Your task to perform on an android device: turn off data saver in the chrome app Image 0: 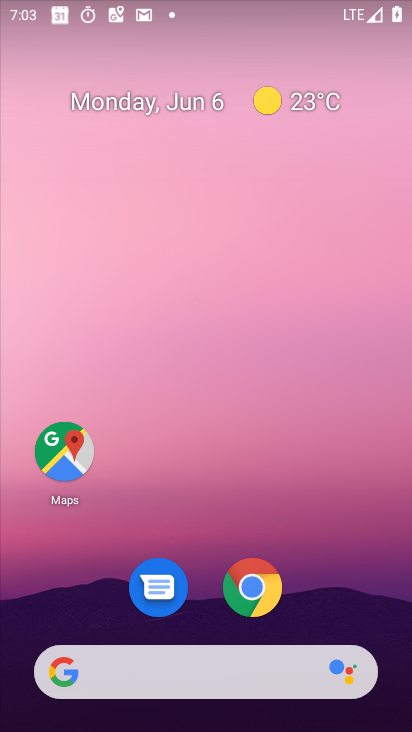
Step 0: drag from (398, 670) to (317, 48)
Your task to perform on an android device: turn off data saver in the chrome app Image 1: 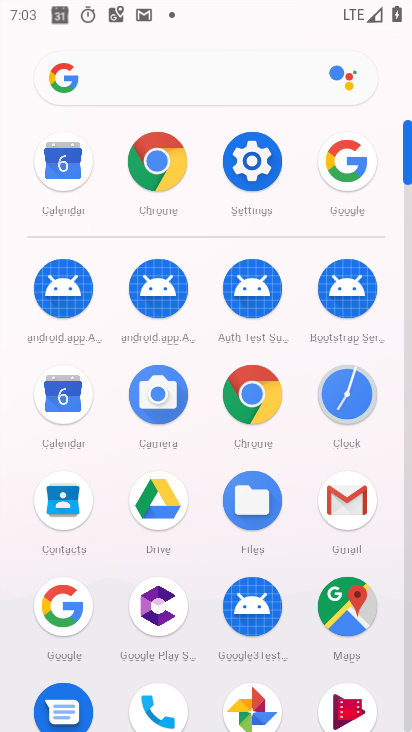
Step 1: click (164, 163)
Your task to perform on an android device: turn off data saver in the chrome app Image 2: 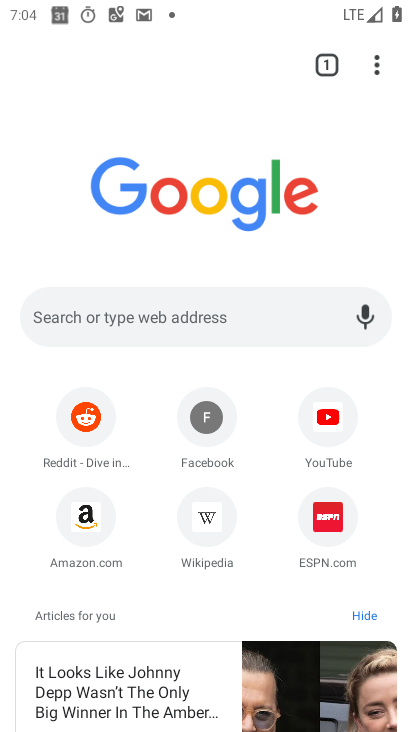
Step 2: click (375, 67)
Your task to perform on an android device: turn off data saver in the chrome app Image 3: 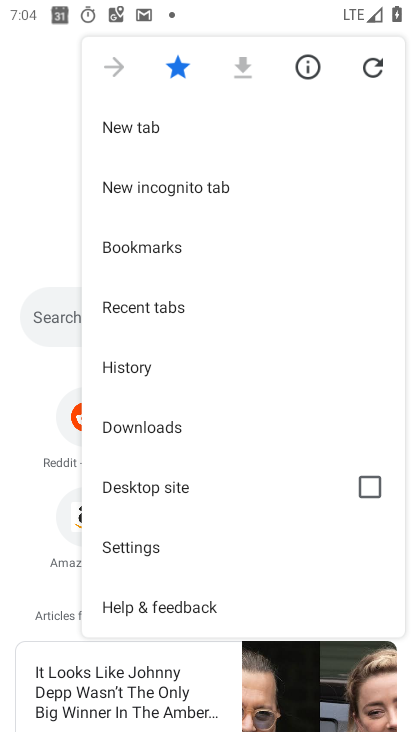
Step 3: click (190, 542)
Your task to perform on an android device: turn off data saver in the chrome app Image 4: 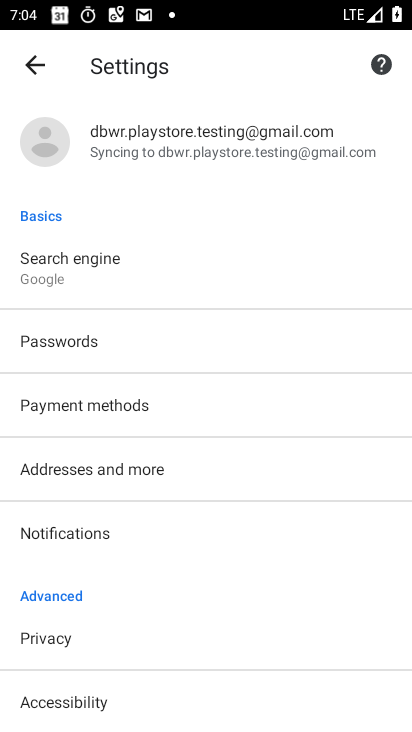
Step 4: drag from (142, 716) to (253, 157)
Your task to perform on an android device: turn off data saver in the chrome app Image 5: 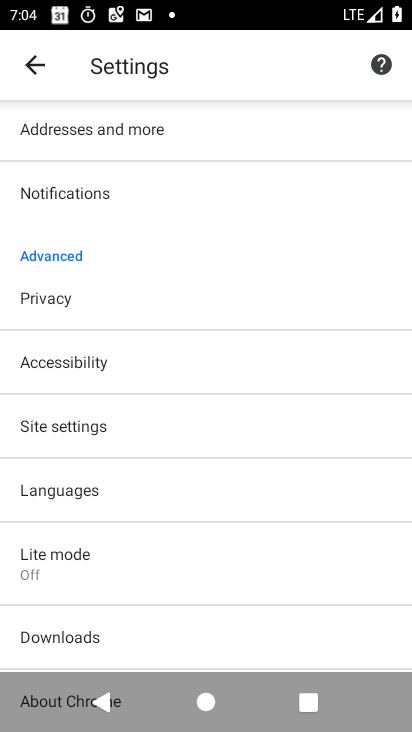
Step 5: click (148, 559)
Your task to perform on an android device: turn off data saver in the chrome app Image 6: 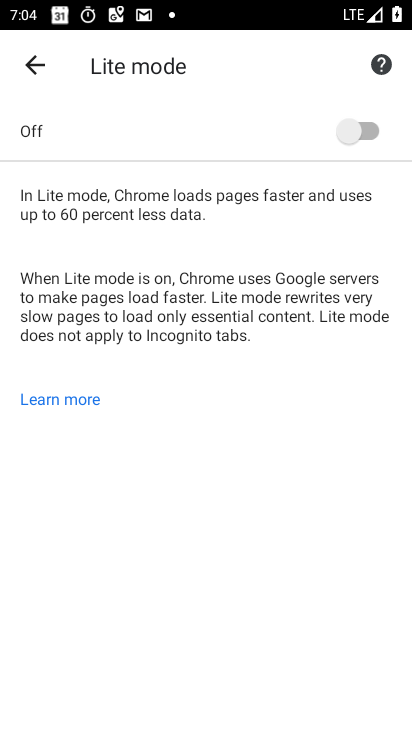
Step 6: task complete